Your task to perform on an android device: Go to settings Image 0: 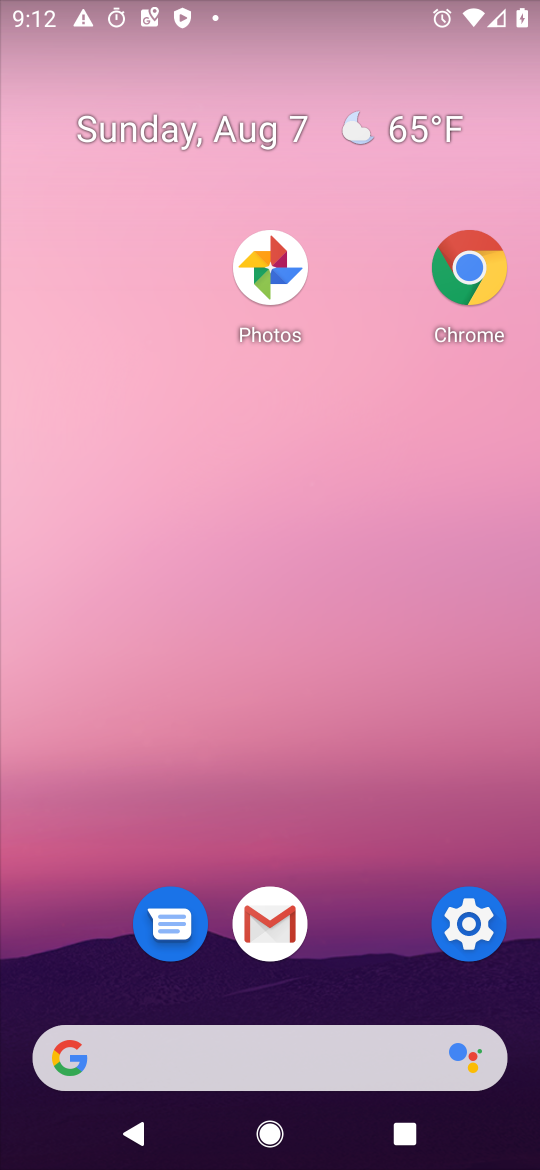
Step 0: drag from (343, 1089) to (285, 248)
Your task to perform on an android device: Go to settings Image 1: 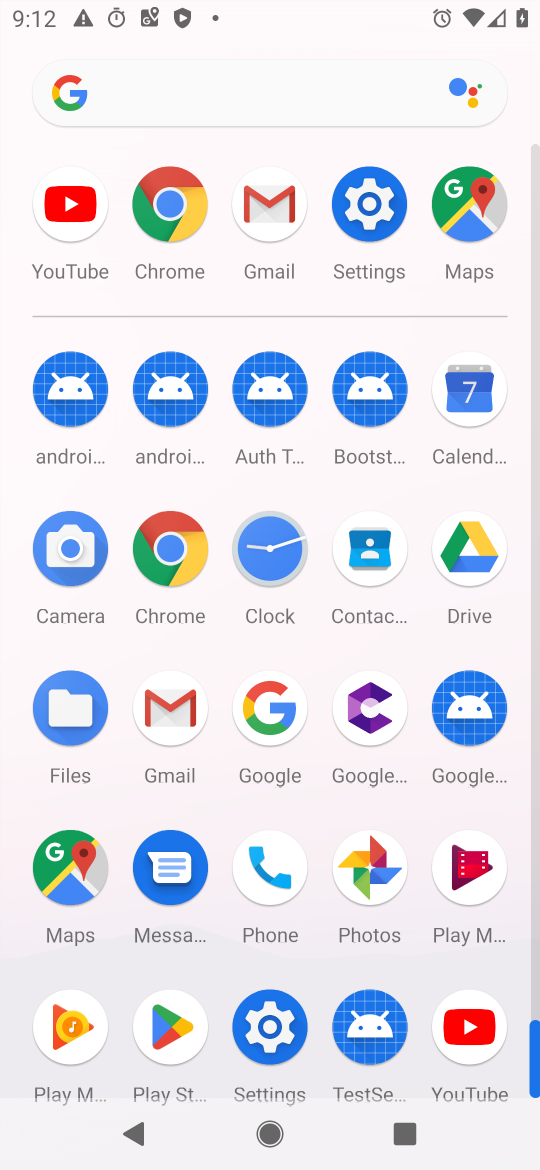
Step 1: click (266, 1021)
Your task to perform on an android device: Go to settings Image 2: 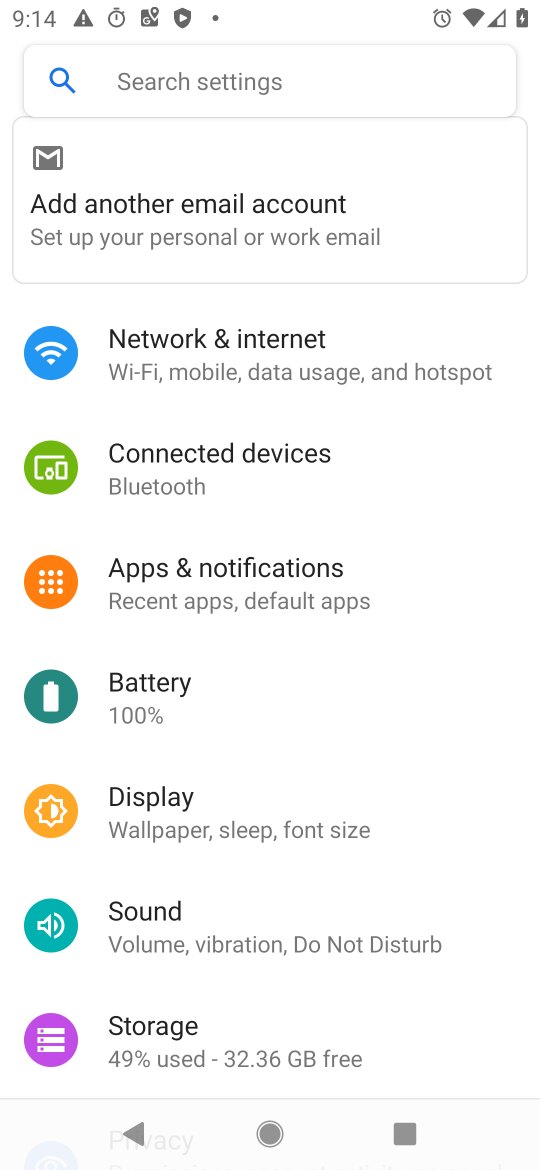
Step 2: task complete